Your task to perform on an android device: What's the weather going to be tomorrow? Image 0: 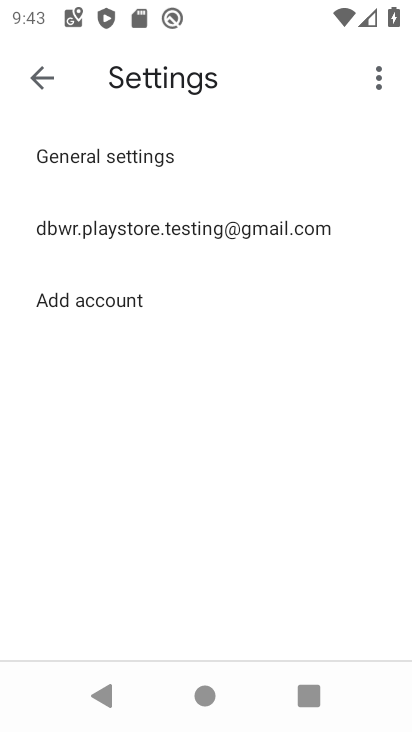
Step 0: press home button
Your task to perform on an android device: What's the weather going to be tomorrow? Image 1: 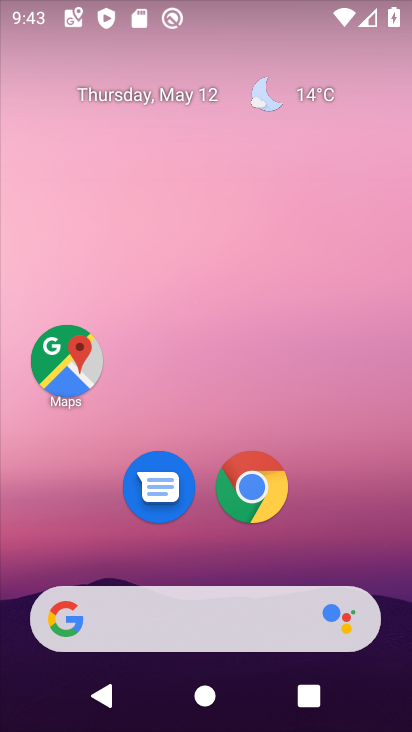
Step 1: click (229, 632)
Your task to perform on an android device: What's the weather going to be tomorrow? Image 2: 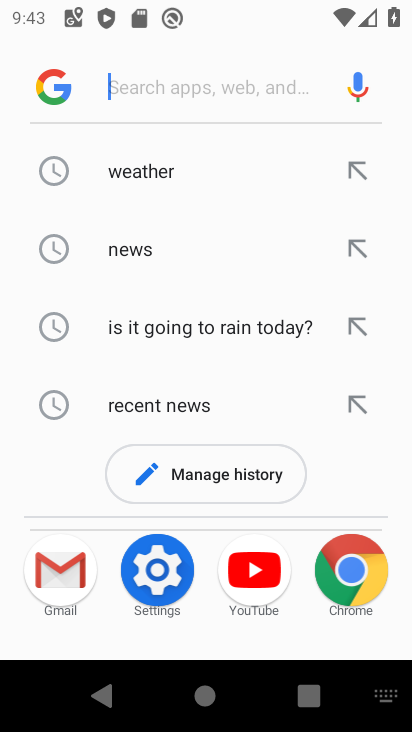
Step 2: click (183, 187)
Your task to perform on an android device: What's the weather going to be tomorrow? Image 3: 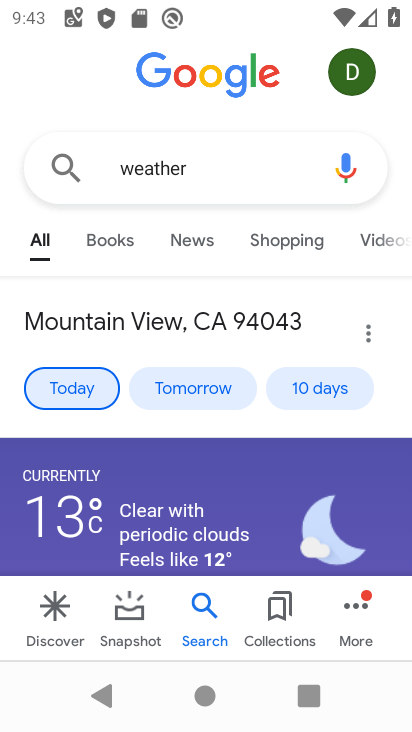
Step 3: click (188, 389)
Your task to perform on an android device: What's the weather going to be tomorrow? Image 4: 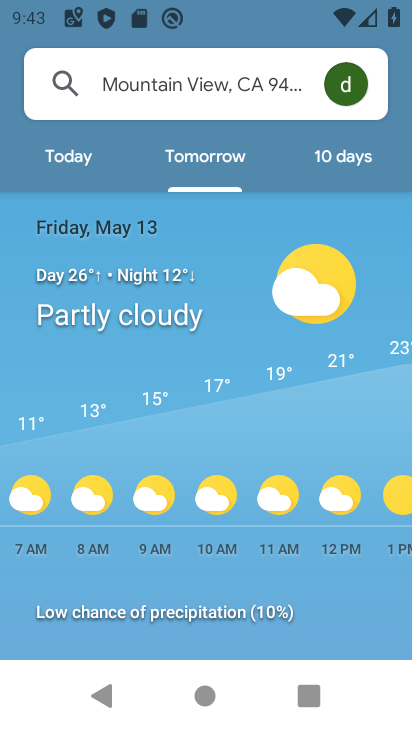
Step 4: task complete